Your task to perform on an android device: Search for seafood restaurants on Google Maps Image 0: 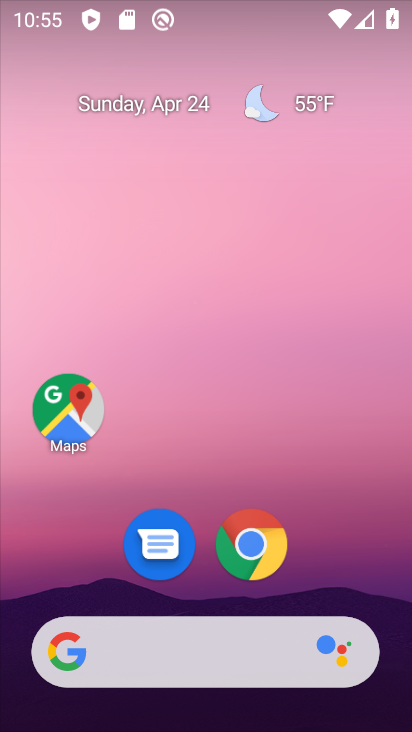
Step 0: click (83, 406)
Your task to perform on an android device: Search for seafood restaurants on Google Maps Image 1: 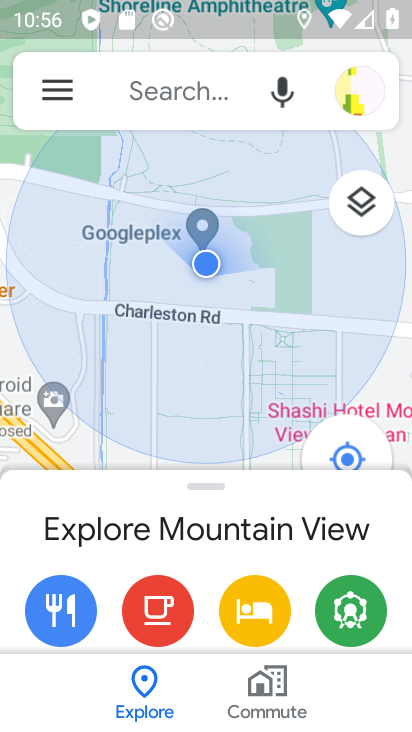
Step 1: click (163, 85)
Your task to perform on an android device: Search for seafood restaurants on Google Maps Image 2: 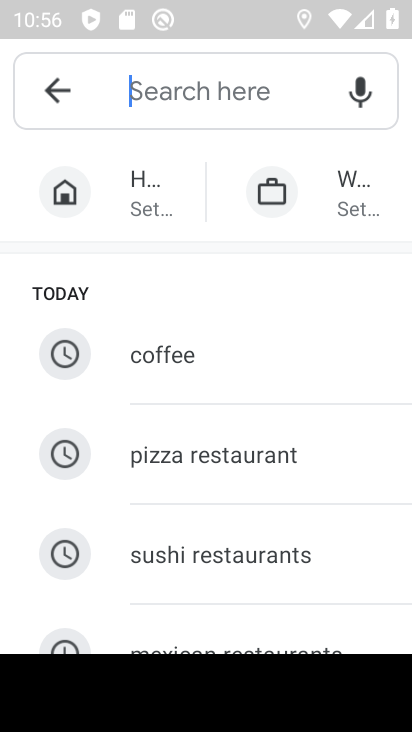
Step 2: drag from (216, 590) to (231, 291)
Your task to perform on an android device: Search for seafood restaurants on Google Maps Image 3: 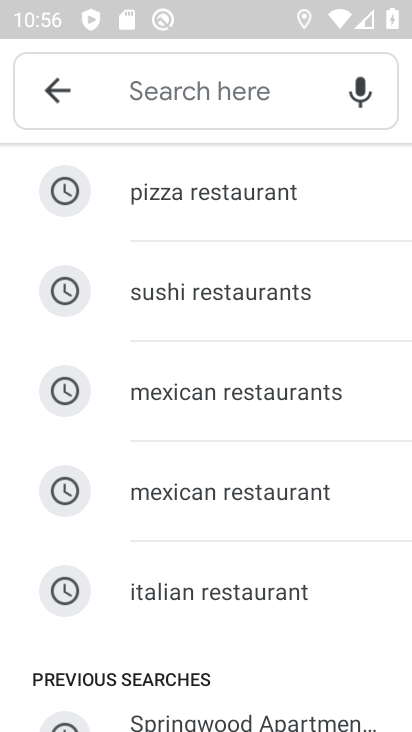
Step 3: click (177, 90)
Your task to perform on an android device: Search for seafood restaurants on Google Maps Image 4: 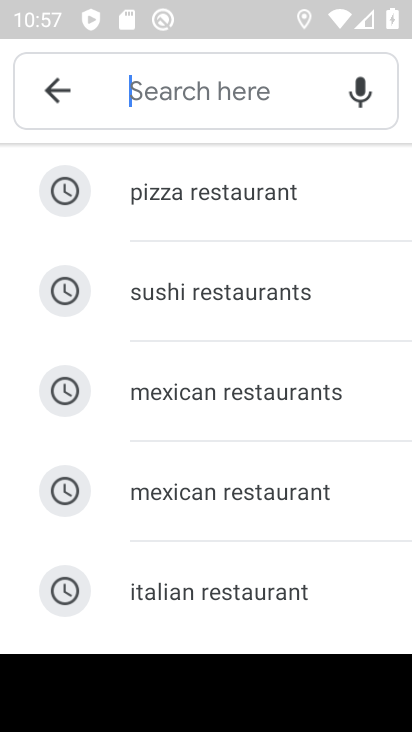
Step 4: type "seafood restaurants"
Your task to perform on an android device: Search for seafood restaurants on Google Maps Image 5: 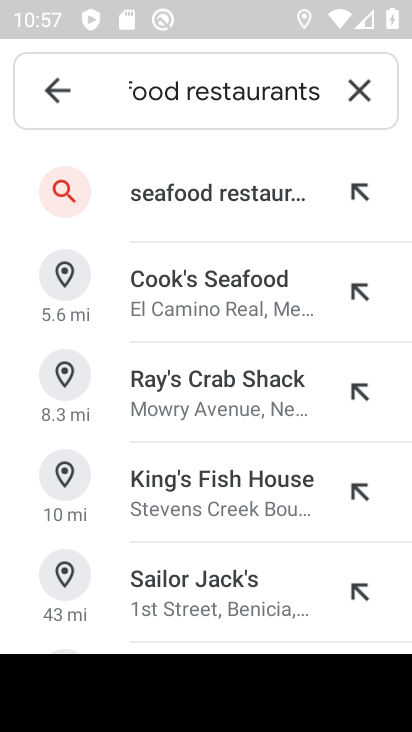
Step 5: click (228, 202)
Your task to perform on an android device: Search for seafood restaurants on Google Maps Image 6: 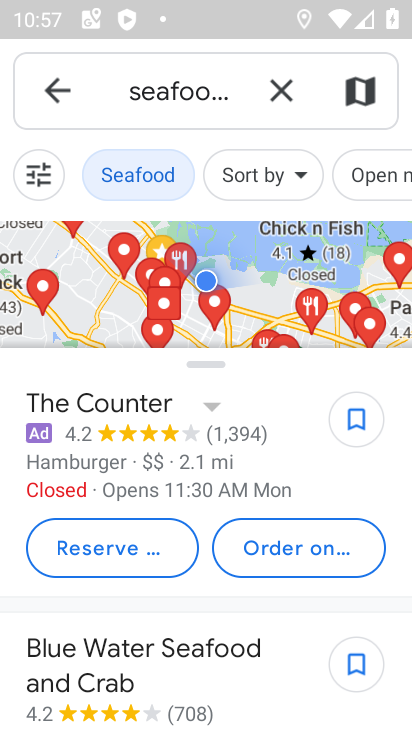
Step 6: task complete